Your task to perform on an android device: Open Youtube and go to "Your channel" Image 0: 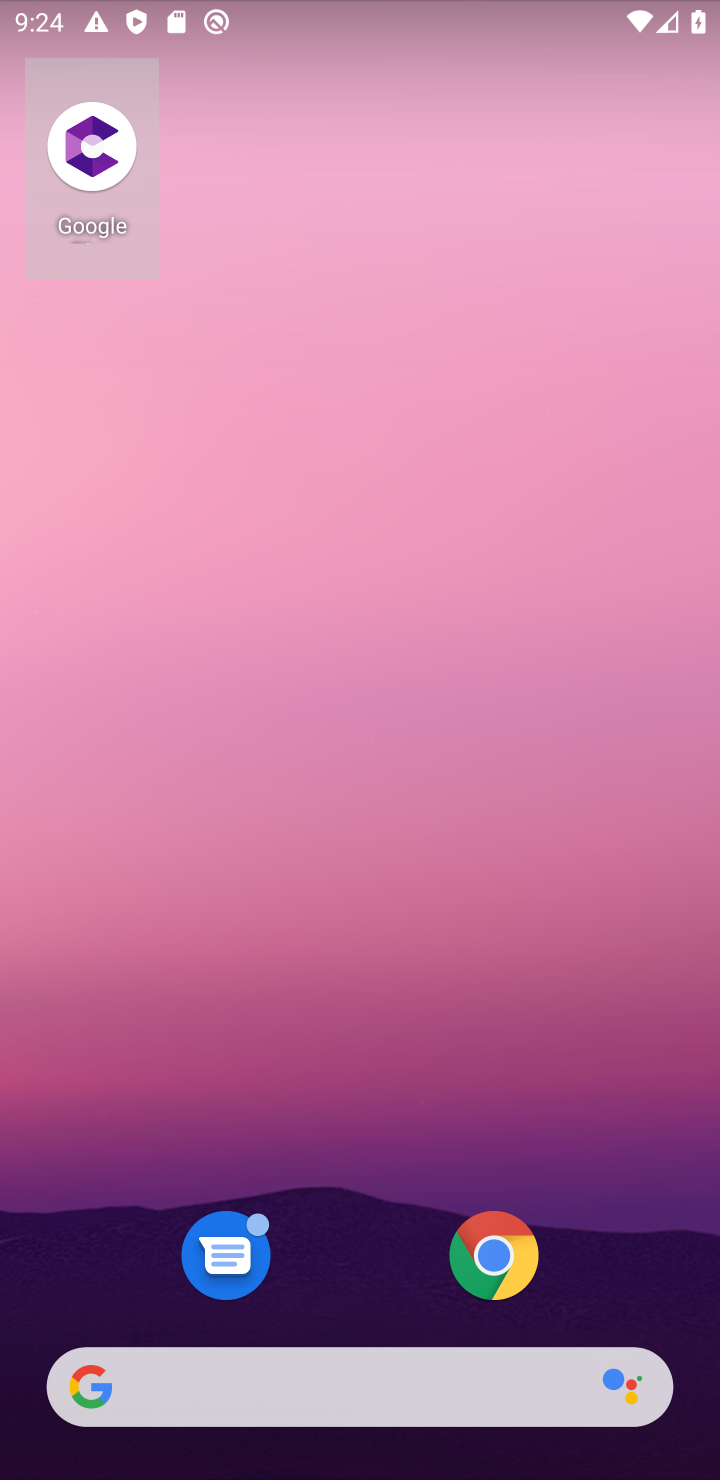
Step 0: click (417, 1074)
Your task to perform on an android device: Open Youtube and go to "Your channel" Image 1: 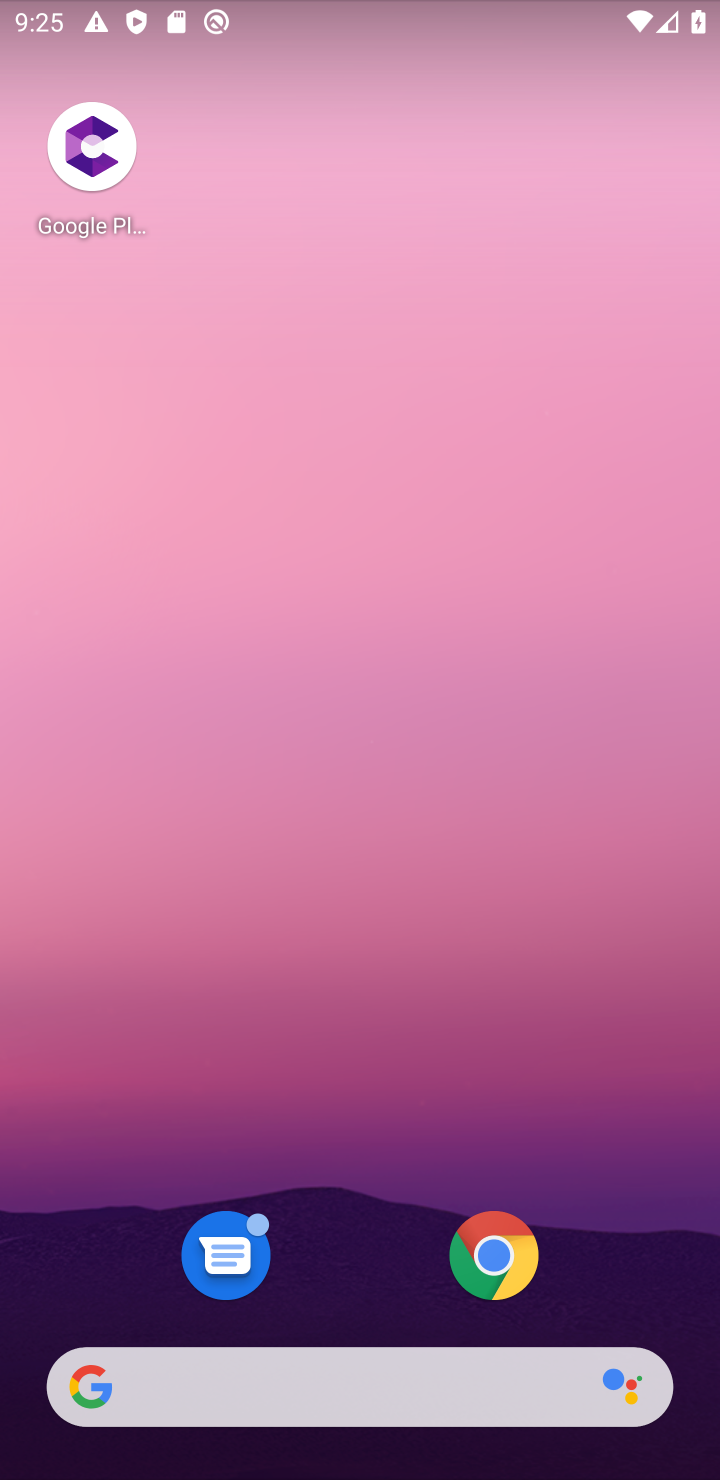
Step 1: drag from (266, 1448) to (373, 568)
Your task to perform on an android device: Open Youtube and go to "Your channel" Image 2: 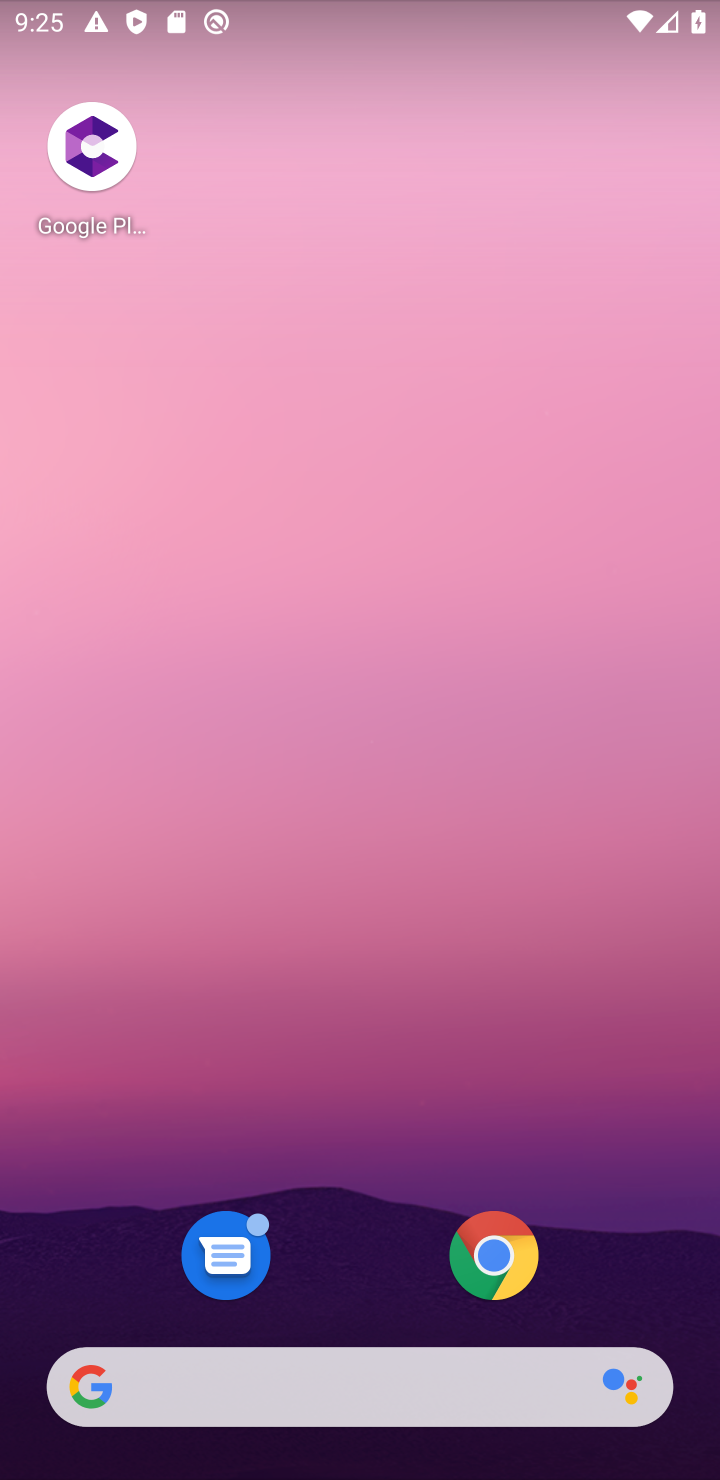
Step 2: drag from (266, 1447) to (295, 131)
Your task to perform on an android device: Open Youtube and go to "Your channel" Image 3: 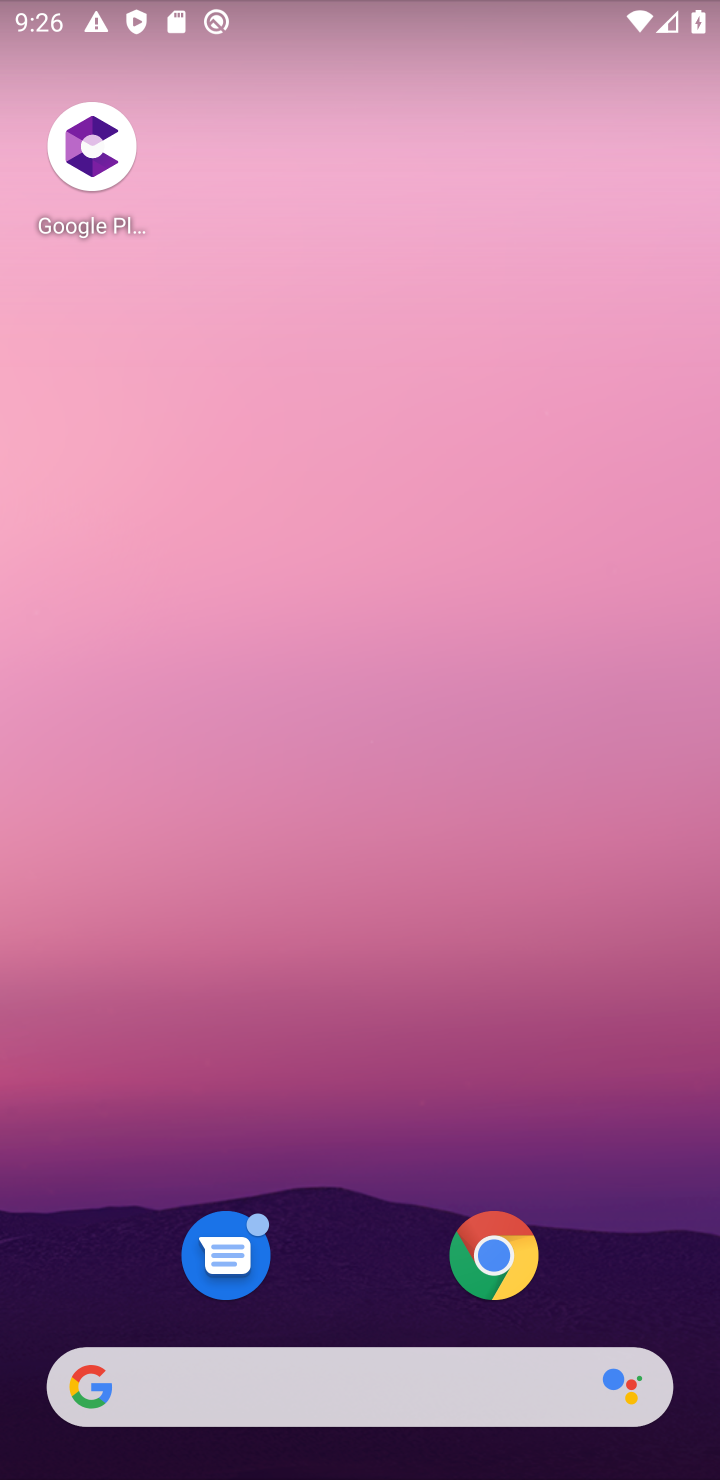
Step 3: drag from (359, 1407) to (457, 220)
Your task to perform on an android device: Open Youtube and go to "Your channel" Image 4: 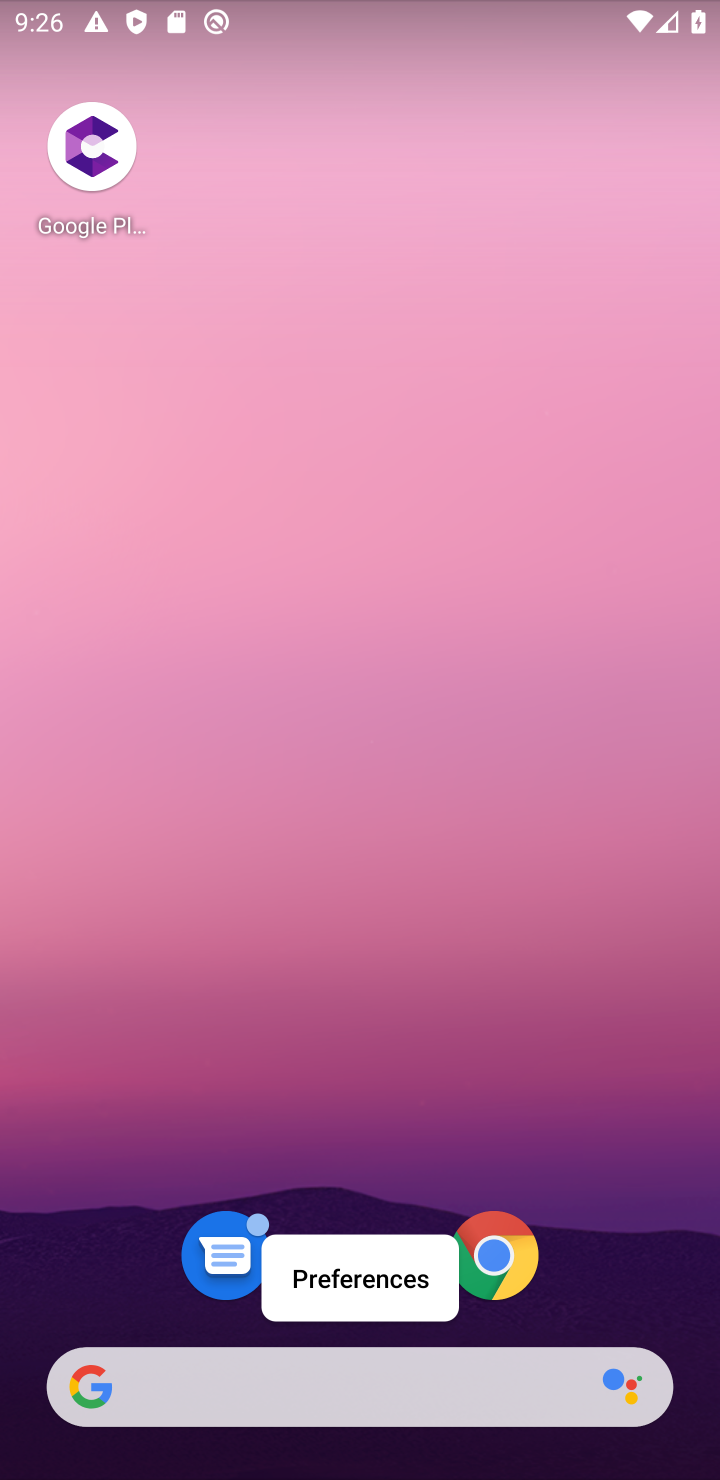
Step 4: drag from (216, 1464) to (511, 262)
Your task to perform on an android device: Open Youtube and go to "Your channel" Image 5: 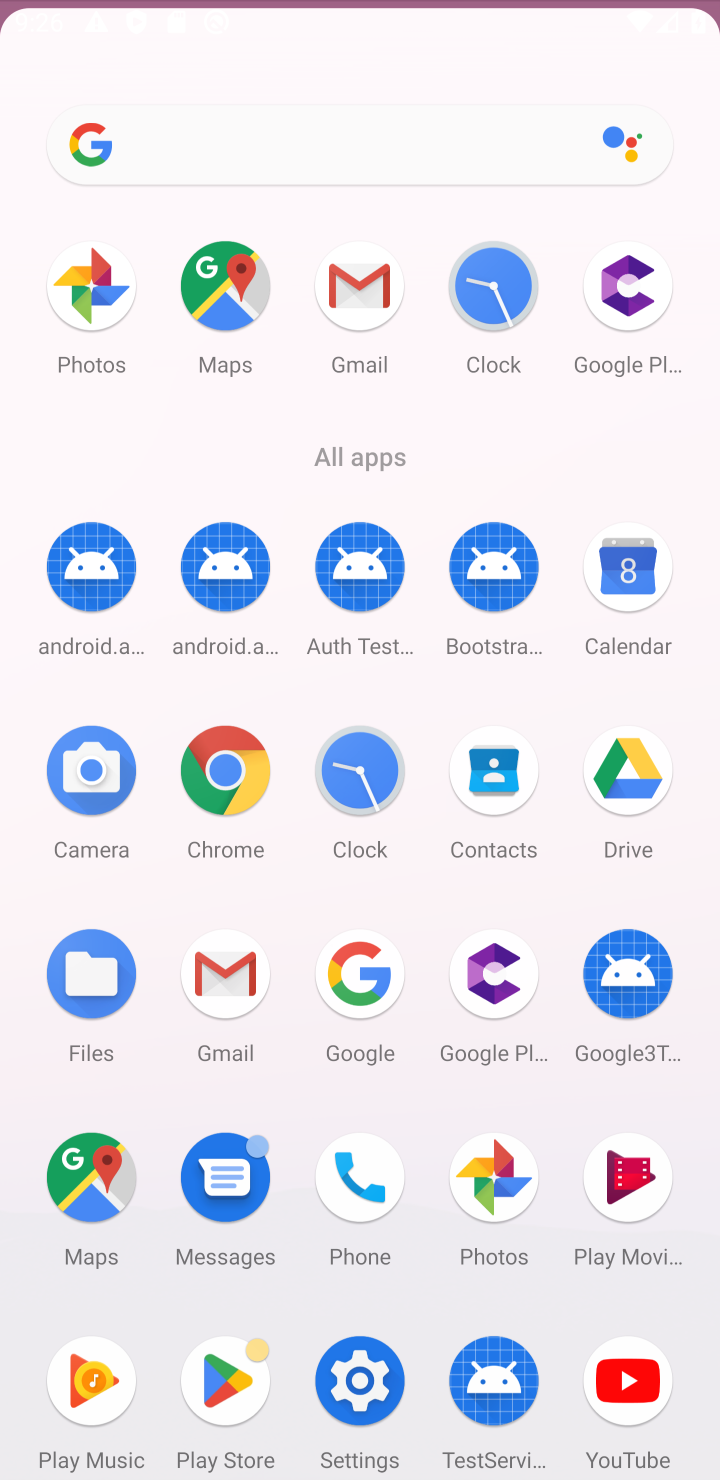
Step 5: drag from (142, 1462) to (449, 172)
Your task to perform on an android device: Open Youtube and go to "Your channel" Image 6: 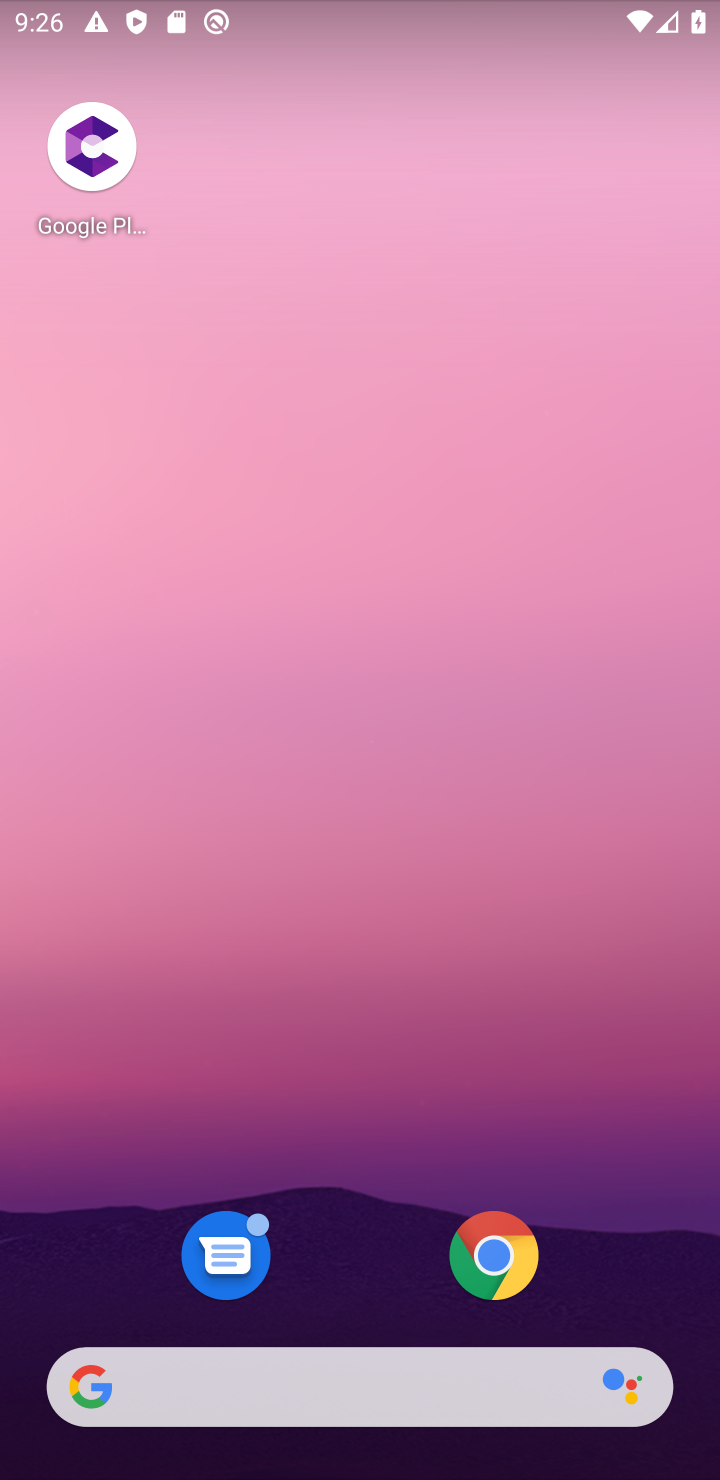
Step 6: drag from (429, 1452) to (559, 381)
Your task to perform on an android device: Open Youtube and go to "Your channel" Image 7: 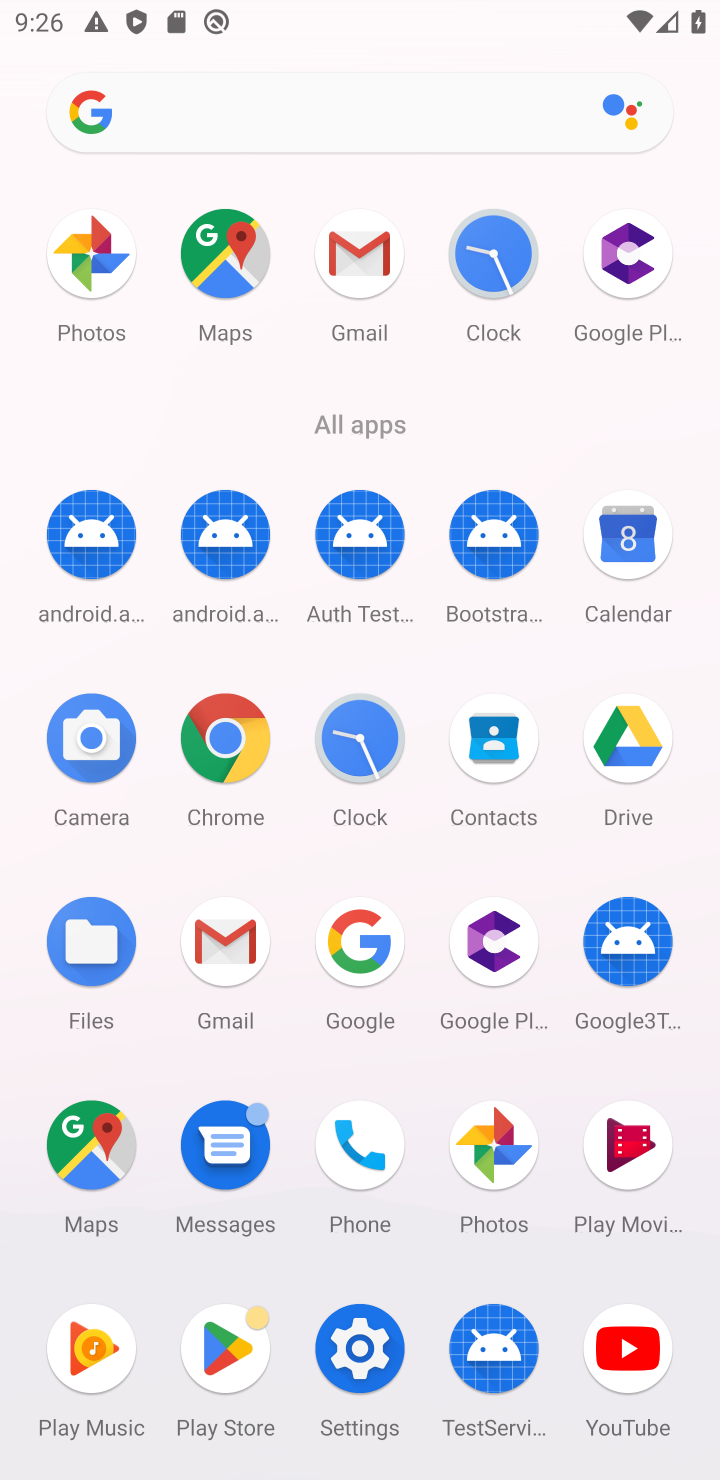
Step 7: click (633, 1376)
Your task to perform on an android device: Open Youtube and go to "Your channel" Image 8: 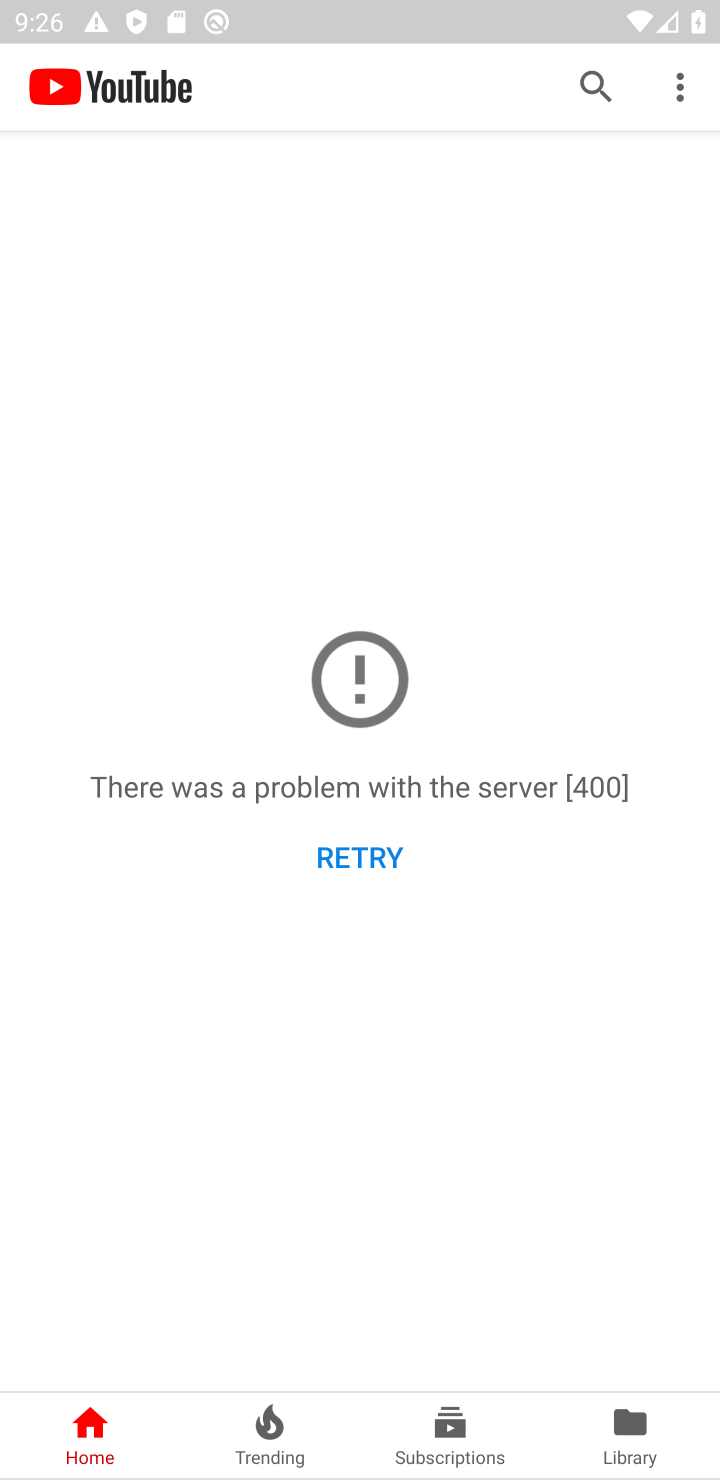
Step 8: click (683, 80)
Your task to perform on an android device: Open Youtube and go to "Your channel" Image 9: 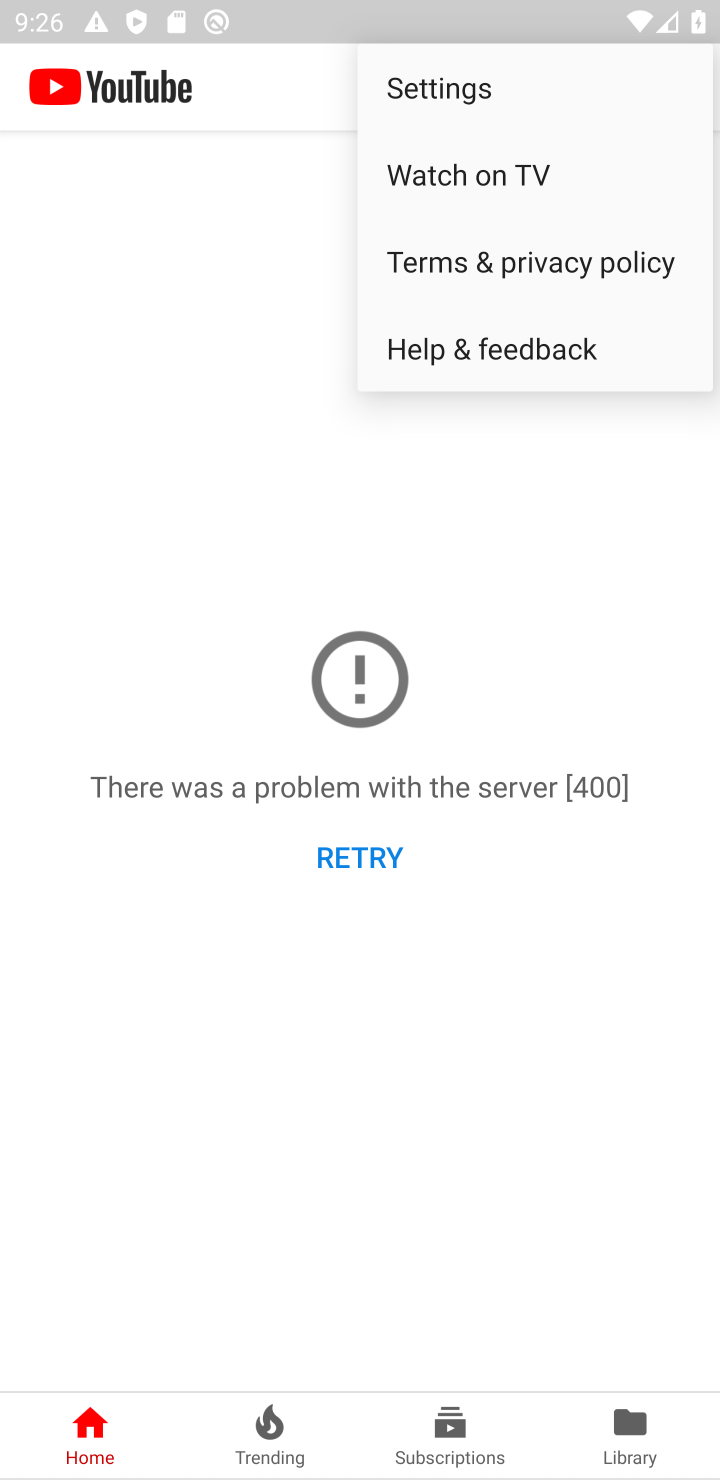
Step 9: task complete